Your task to perform on an android device: read, delete, or share a saved page in the chrome app Image 0: 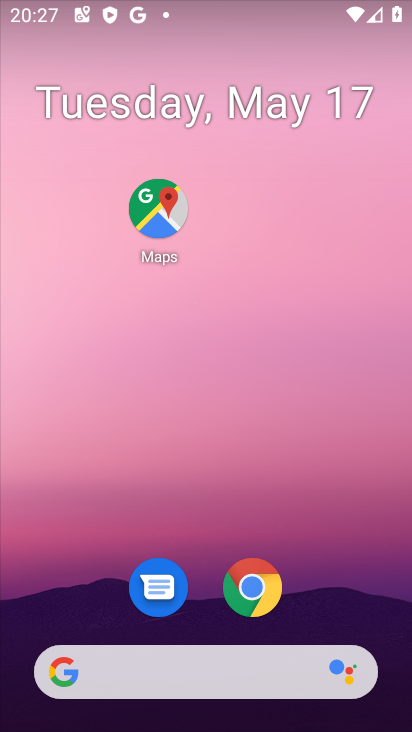
Step 0: click (263, 582)
Your task to perform on an android device: read, delete, or share a saved page in the chrome app Image 1: 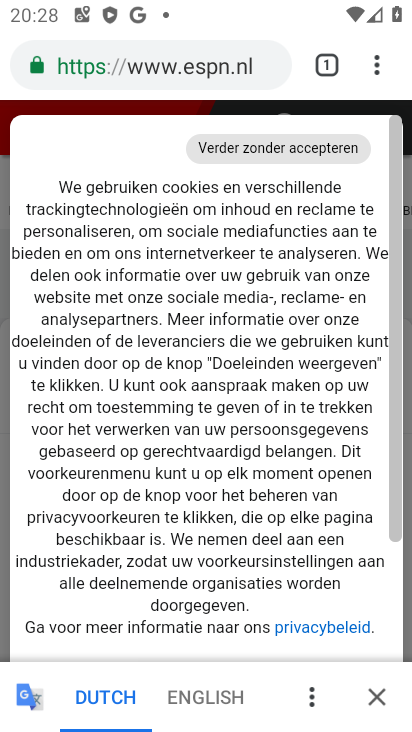
Step 1: click (335, 62)
Your task to perform on an android device: read, delete, or share a saved page in the chrome app Image 2: 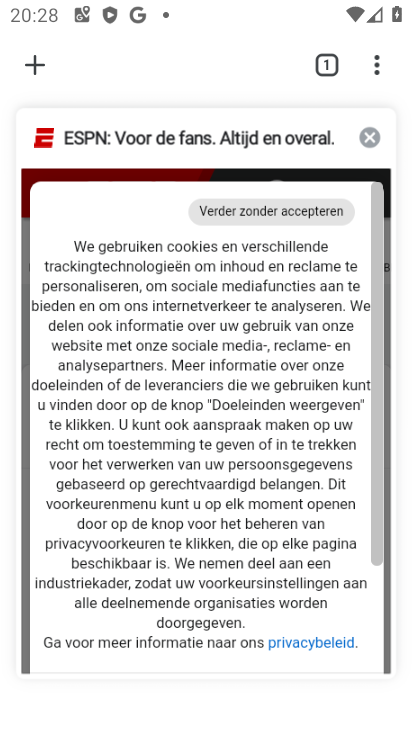
Step 2: click (372, 141)
Your task to perform on an android device: read, delete, or share a saved page in the chrome app Image 3: 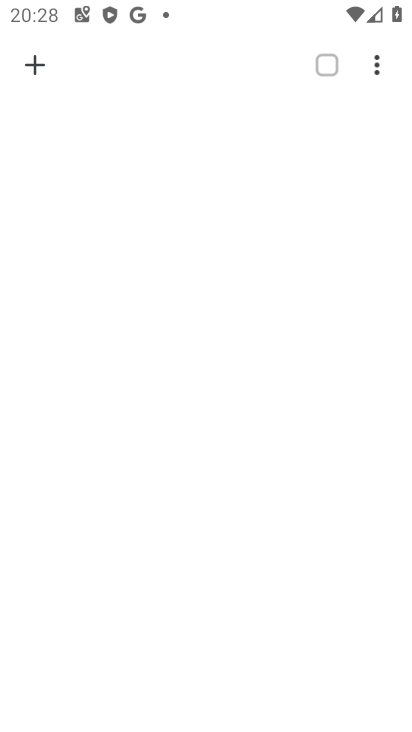
Step 3: click (41, 54)
Your task to perform on an android device: read, delete, or share a saved page in the chrome app Image 4: 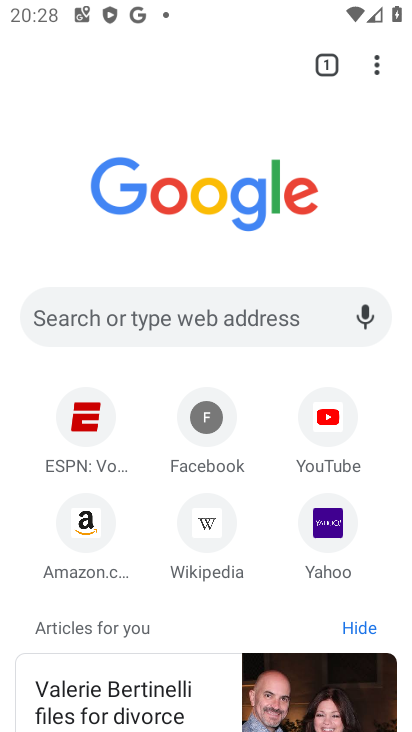
Step 4: click (231, 420)
Your task to perform on an android device: read, delete, or share a saved page in the chrome app Image 5: 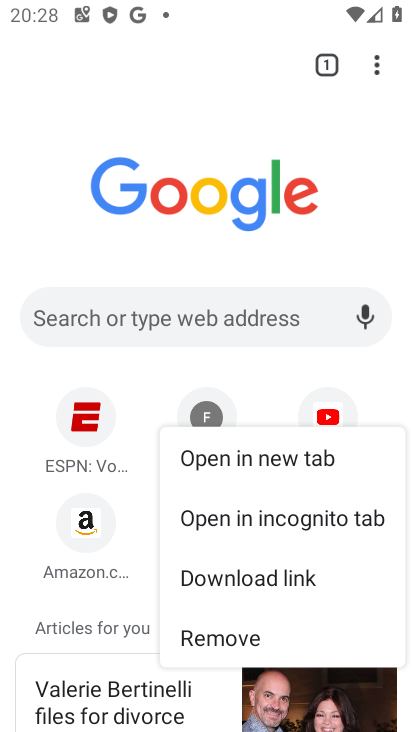
Step 5: click (230, 647)
Your task to perform on an android device: read, delete, or share a saved page in the chrome app Image 6: 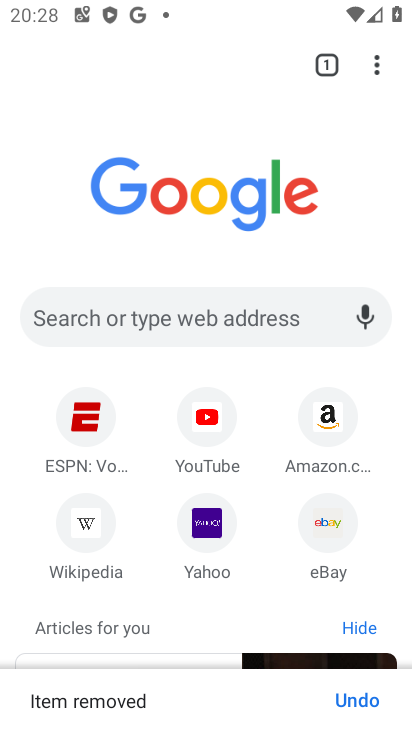
Step 6: task complete